Your task to perform on an android device: add a contact Image 0: 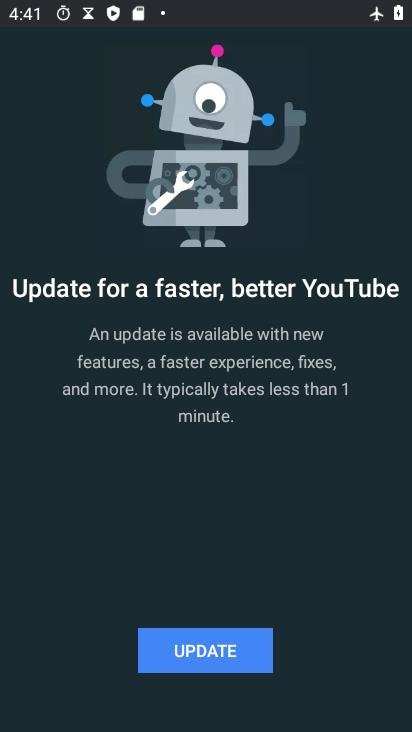
Step 0: press home button
Your task to perform on an android device: add a contact Image 1: 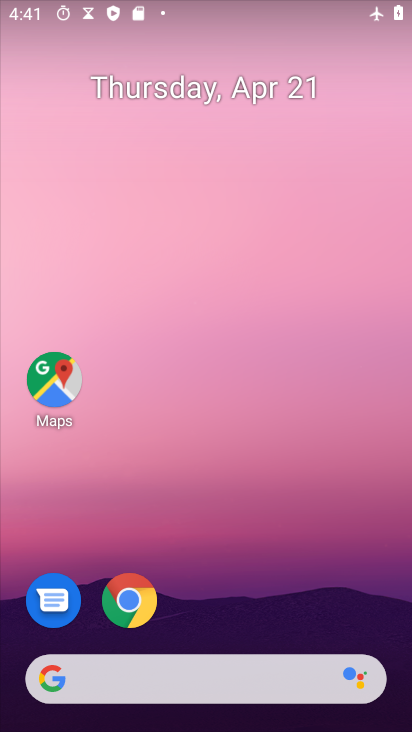
Step 1: drag from (207, 615) to (235, 50)
Your task to perform on an android device: add a contact Image 2: 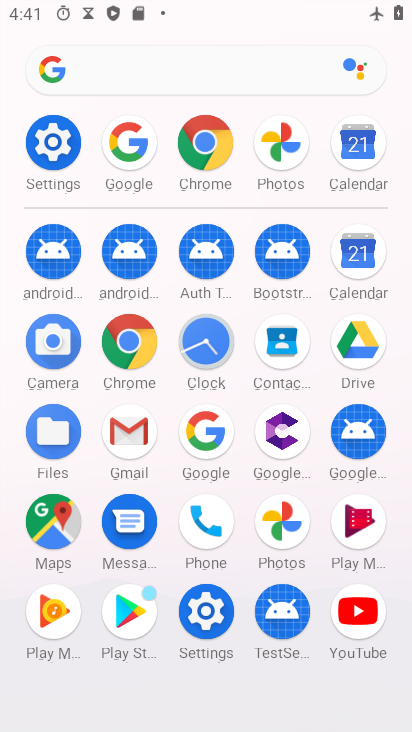
Step 2: click (283, 339)
Your task to perform on an android device: add a contact Image 3: 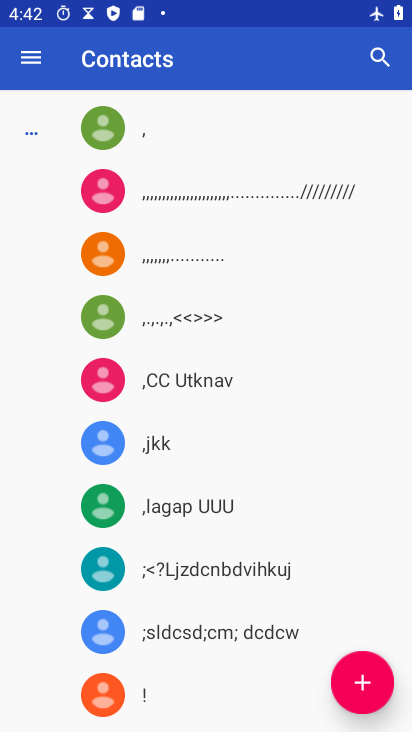
Step 3: click (363, 679)
Your task to perform on an android device: add a contact Image 4: 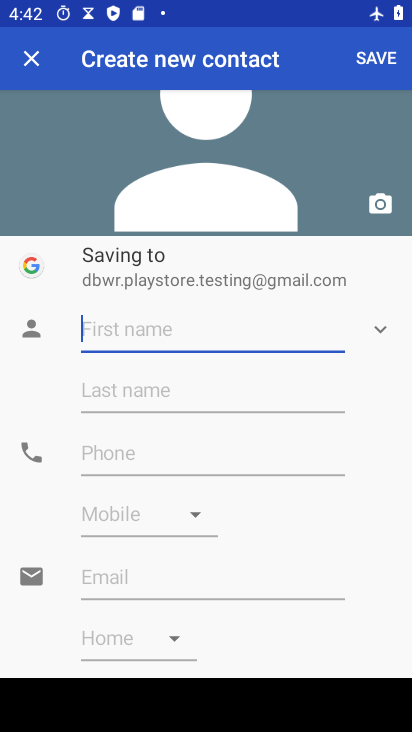
Step 4: click (283, 335)
Your task to perform on an android device: add a contact Image 5: 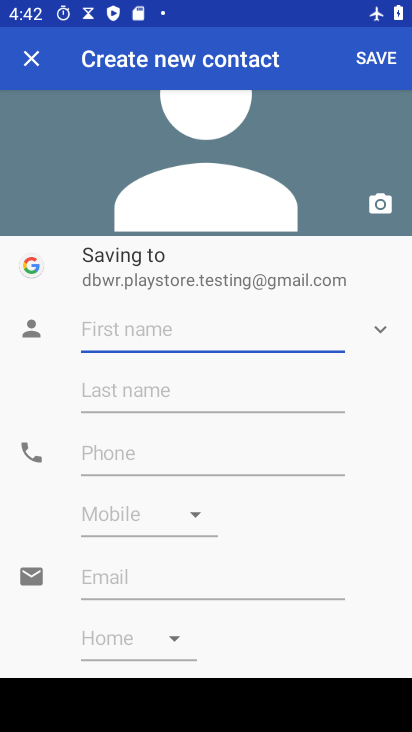
Step 5: type "Chandrapratap"
Your task to perform on an android device: add a contact Image 6: 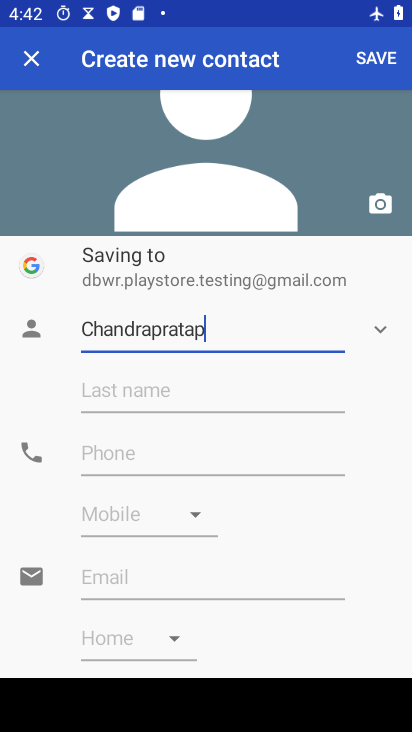
Step 6: click (166, 394)
Your task to perform on an android device: add a contact Image 7: 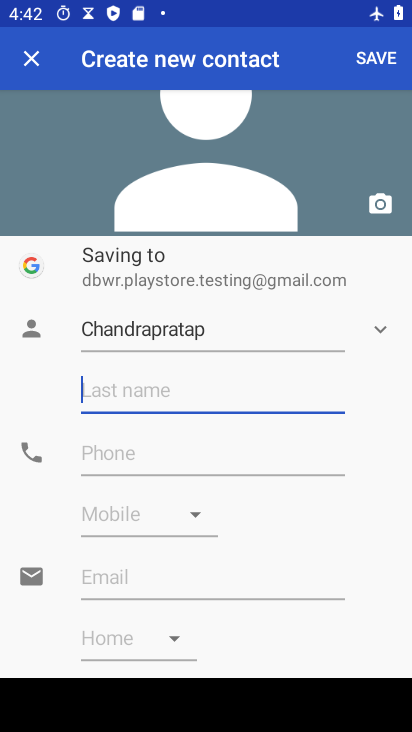
Step 7: type "Dubey"
Your task to perform on an android device: add a contact Image 8: 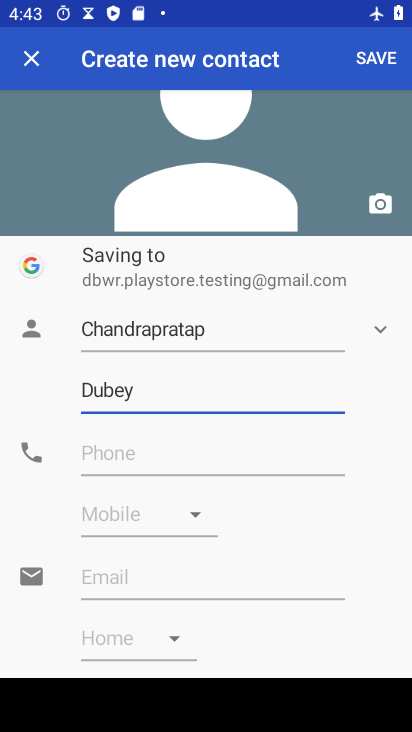
Step 8: click (165, 450)
Your task to perform on an android device: add a contact Image 9: 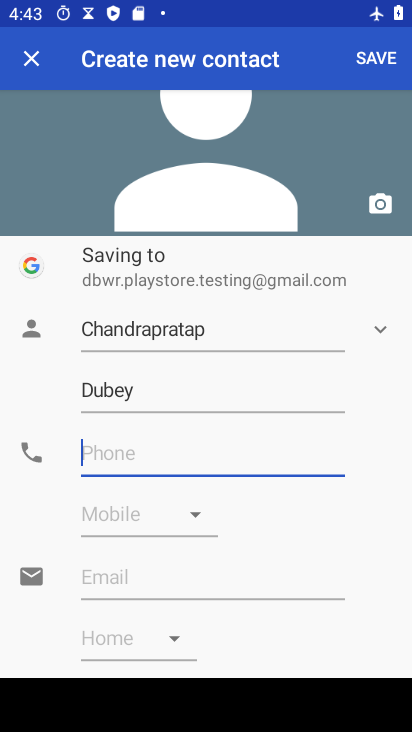
Step 9: type "0987654321"
Your task to perform on an android device: add a contact Image 10: 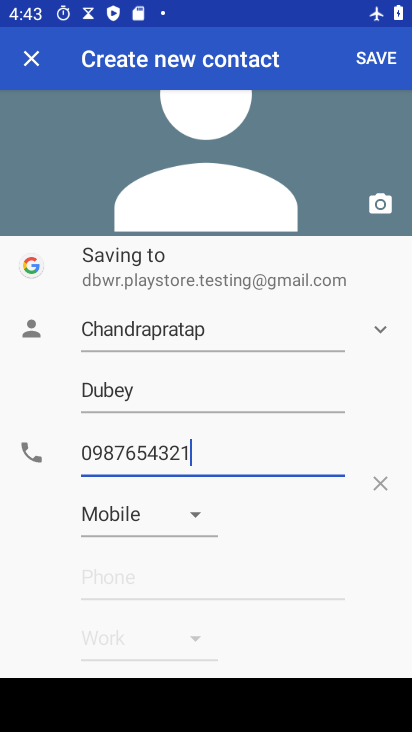
Step 10: type ""
Your task to perform on an android device: add a contact Image 11: 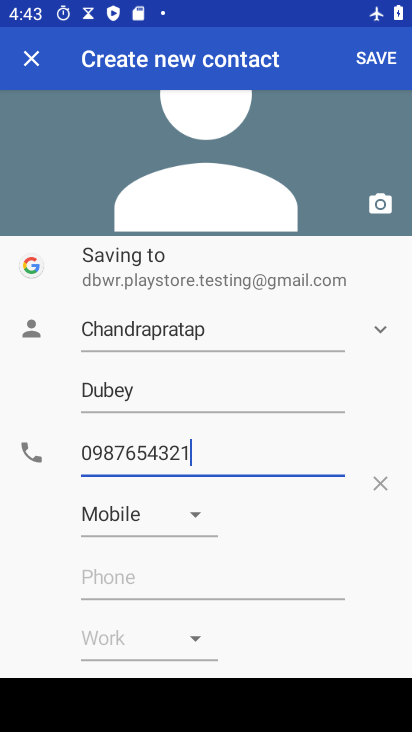
Step 11: click (377, 59)
Your task to perform on an android device: add a contact Image 12: 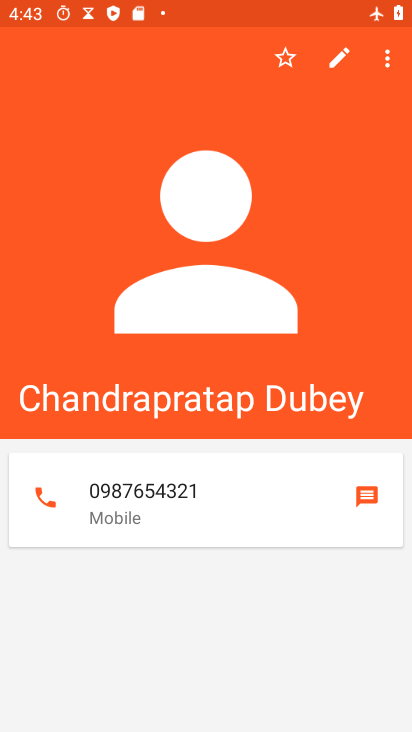
Step 12: task complete